Your task to perform on an android device: Go to Amazon Image 0: 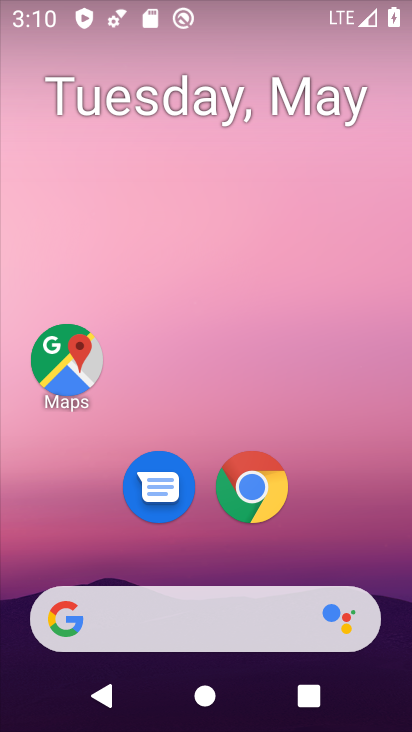
Step 0: click (252, 489)
Your task to perform on an android device: Go to Amazon Image 1: 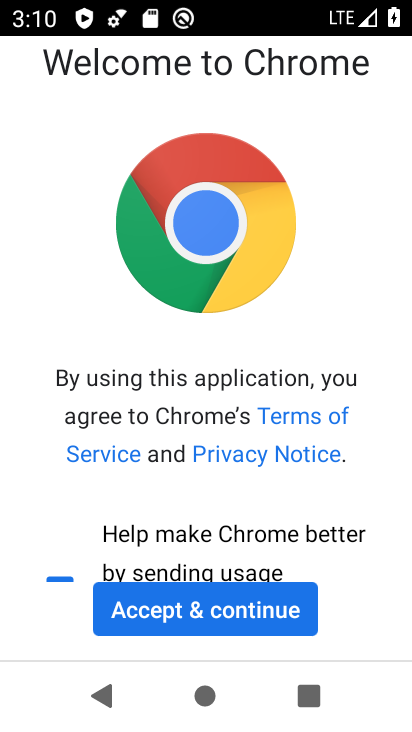
Step 1: click (268, 601)
Your task to perform on an android device: Go to Amazon Image 2: 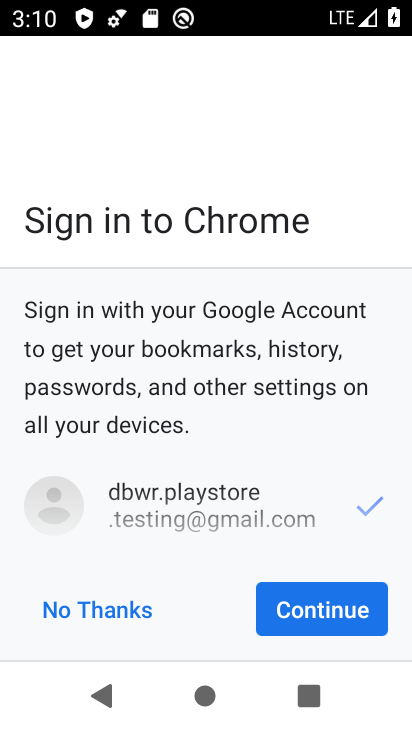
Step 2: click (323, 602)
Your task to perform on an android device: Go to Amazon Image 3: 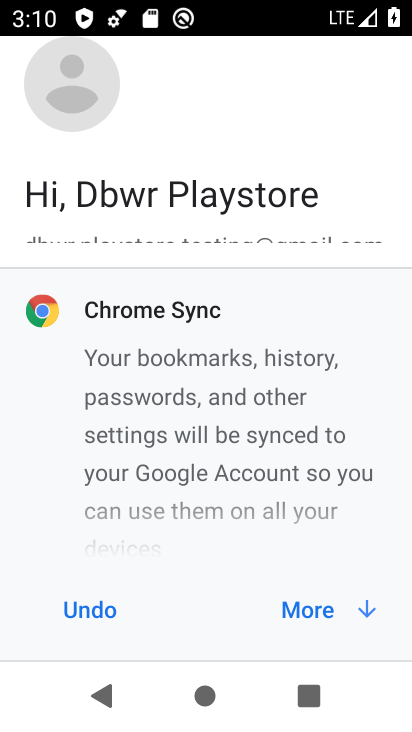
Step 3: click (315, 617)
Your task to perform on an android device: Go to Amazon Image 4: 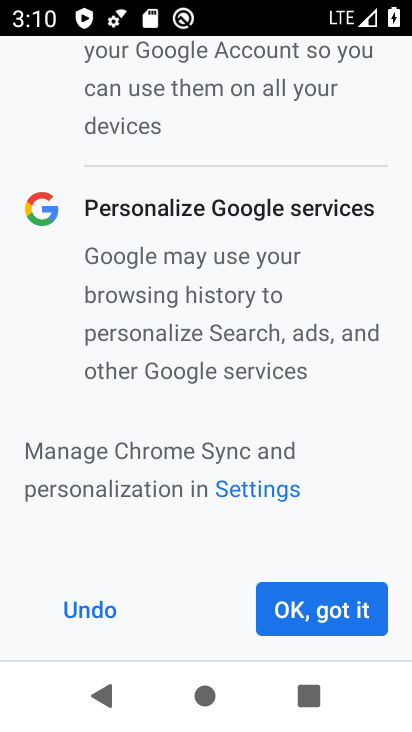
Step 4: click (315, 607)
Your task to perform on an android device: Go to Amazon Image 5: 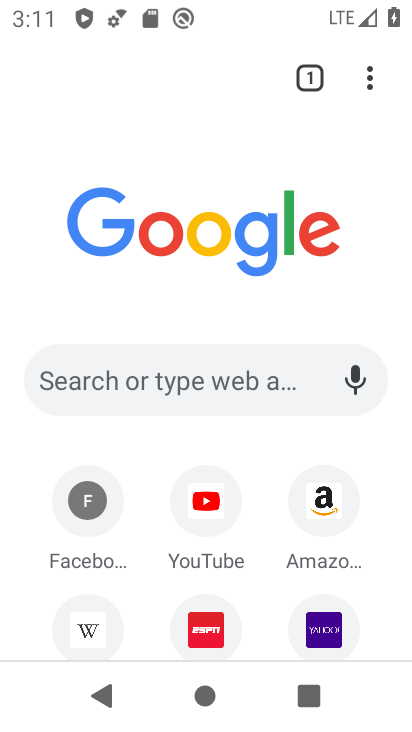
Step 5: click (325, 496)
Your task to perform on an android device: Go to Amazon Image 6: 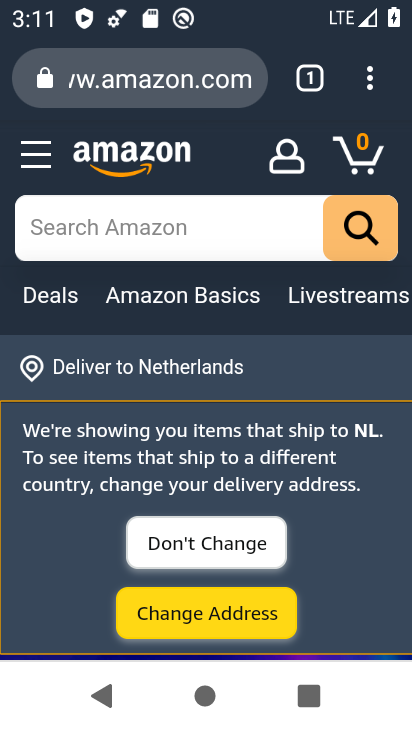
Step 6: task complete